Your task to perform on an android device: open device folders in google photos Image 0: 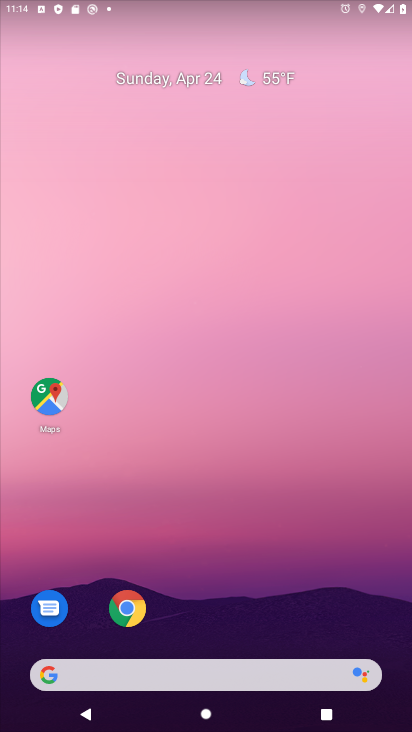
Step 0: drag from (354, 605) to (323, 59)
Your task to perform on an android device: open device folders in google photos Image 1: 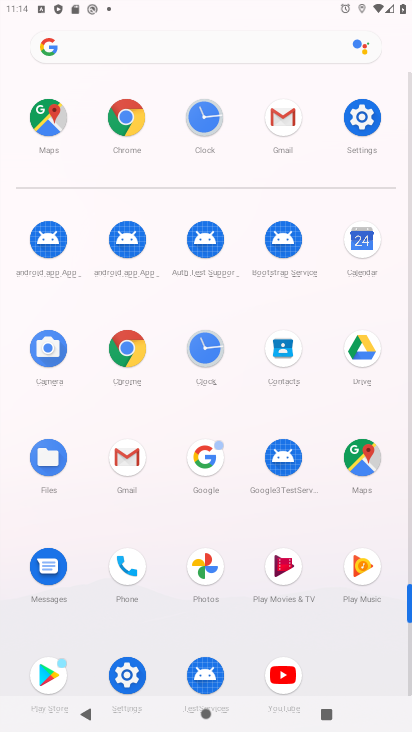
Step 1: click (409, 679)
Your task to perform on an android device: open device folders in google photos Image 2: 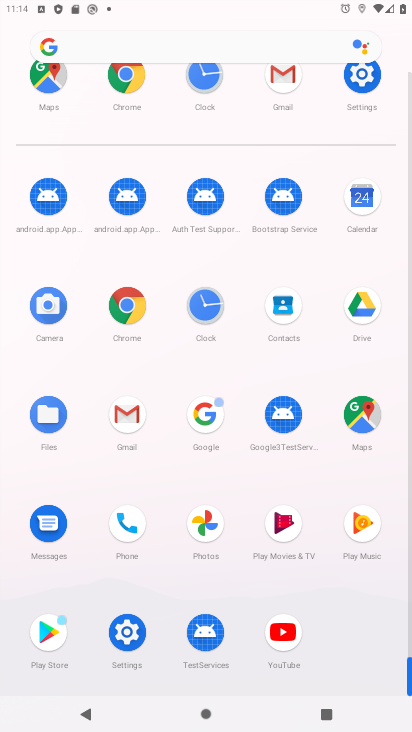
Step 2: click (203, 520)
Your task to perform on an android device: open device folders in google photos Image 3: 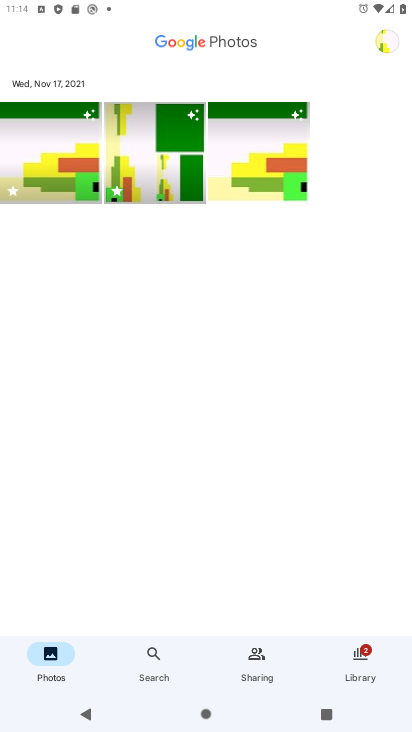
Step 3: click (361, 653)
Your task to perform on an android device: open device folders in google photos Image 4: 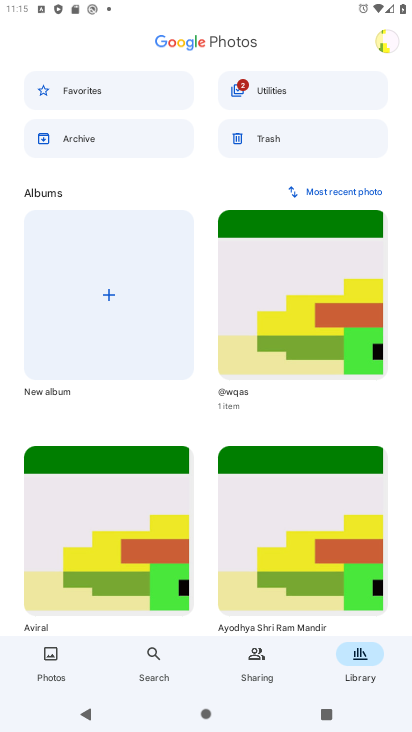
Step 4: task complete